Your task to perform on an android device: Open calendar and show me the fourth week of next month Image 0: 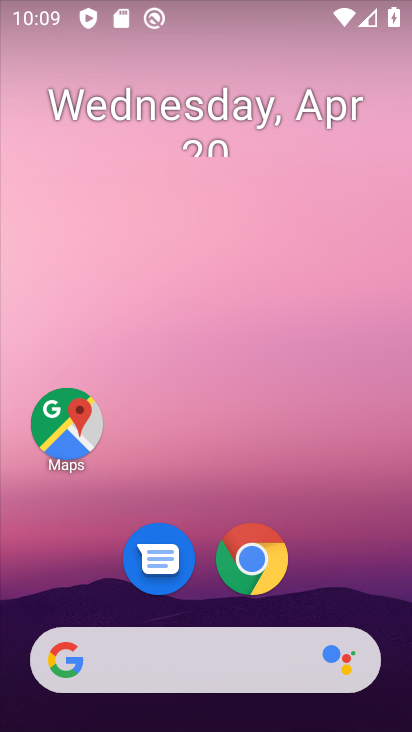
Step 0: drag from (232, 718) to (225, 140)
Your task to perform on an android device: Open calendar and show me the fourth week of next month Image 1: 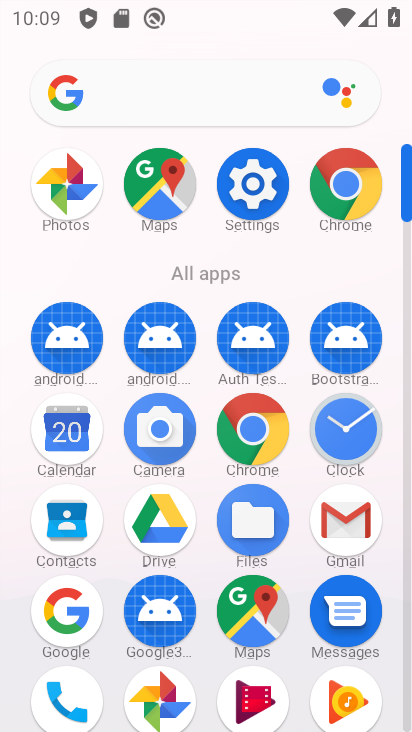
Step 1: click (62, 431)
Your task to perform on an android device: Open calendar and show me the fourth week of next month Image 2: 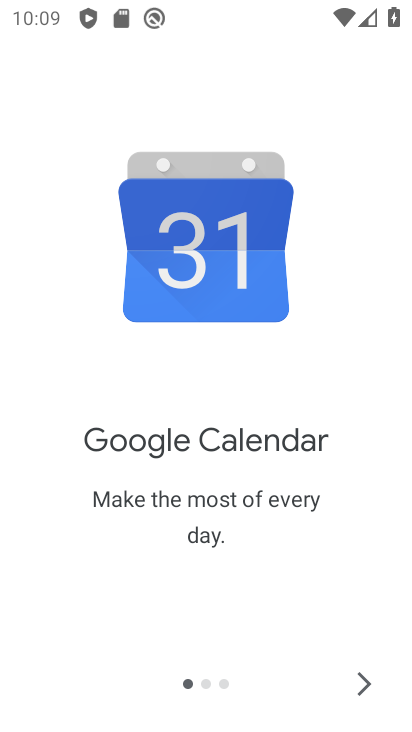
Step 2: click (364, 682)
Your task to perform on an android device: Open calendar and show me the fourth week of next month Image 3: 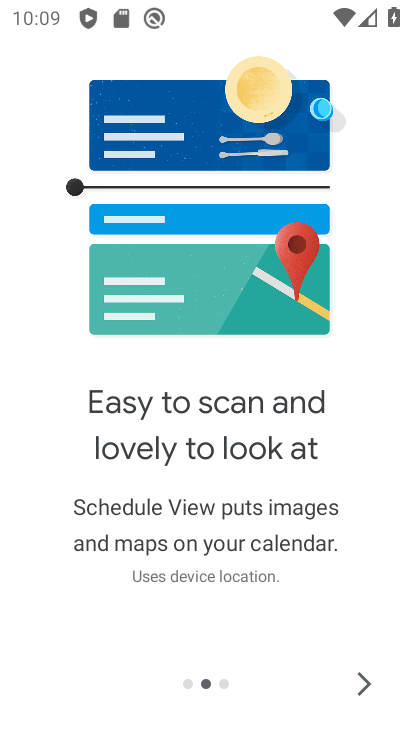
Step 3: click (364, 682)
Your task to perform on an android device: Open calendar and show me the fourth week of next month Image 4: 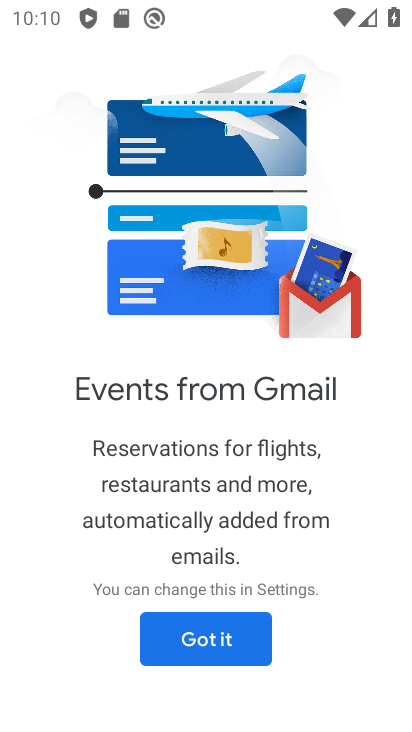
Step 4: click (213, 636)
Your task to perform on an android device: Open calendar and show me the fourth week of next month Image 5: 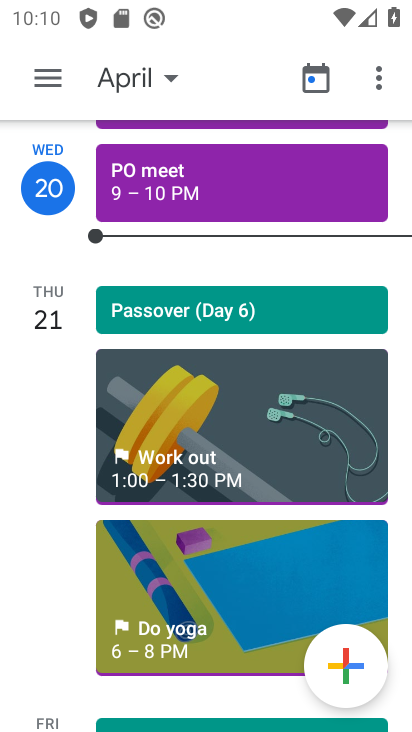
Step 5: click (134, 72)
Your task to perform on an android device: Open calendar and show me the fourth week of next month Image 6: 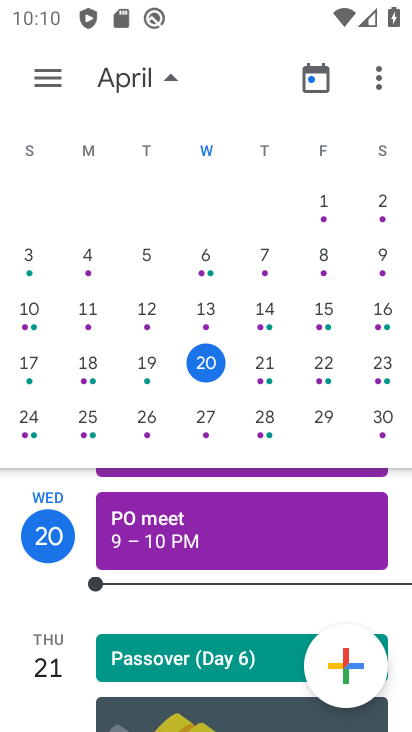
Step 6: drag from (332, 344) to (46, 293)
Your task to perform on an android device: Open calendar and show me the fourth week of next month Image 7: 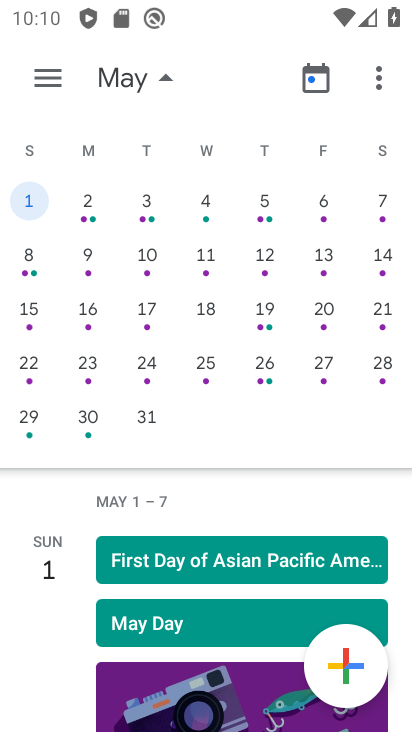
Step 7: click (80, 359)
Your task to perform on an android device: Open calendar and show me the fourth week of next month Image 8: 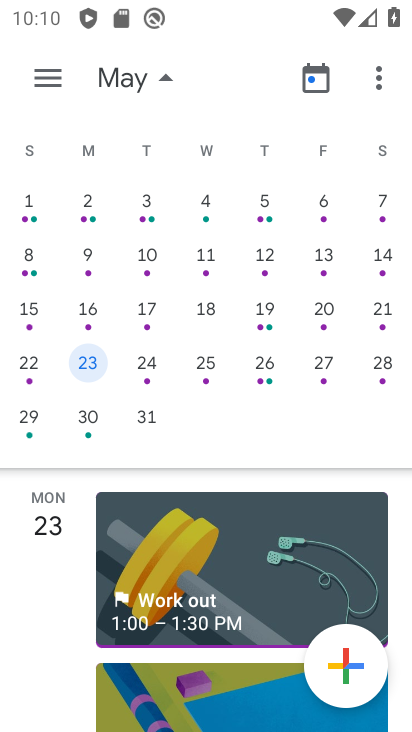
Step 8: task complete